Your task to perform on an android device: install app "Gboard" Image 0: 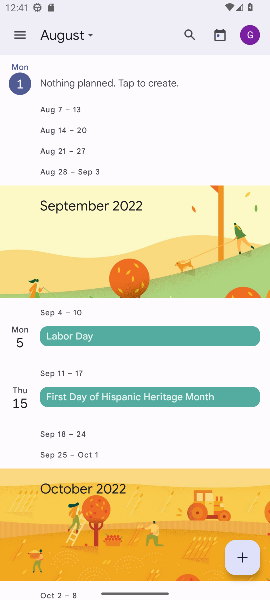
Step 0: press home button
Your task to perform on an android device: install app "Gboard" Image 1: 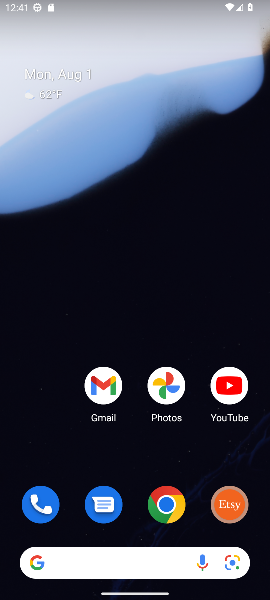
Step 1: drag from (138, 572) to (114, 214)
Your task to perform on an android device: install app "Gboard" Image 2: 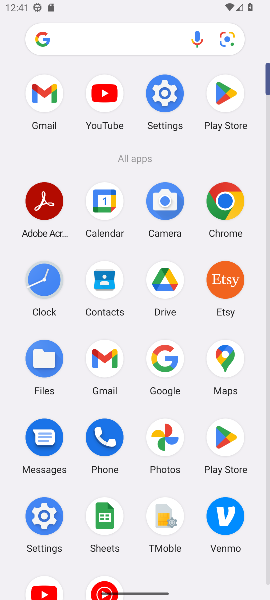
Step 2: click (225, 103)
Your task to perform on an android device: install app "Gboard" Image 3: 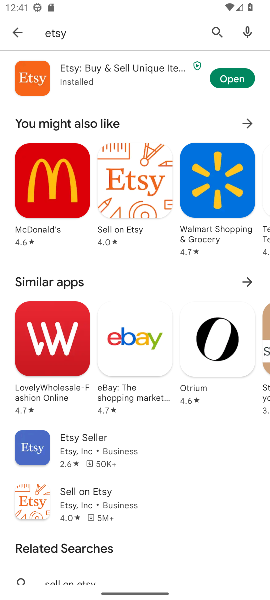
Step 3: click (217, 30)
Your task to perform on an android device: install app "Gboard" Image 4: 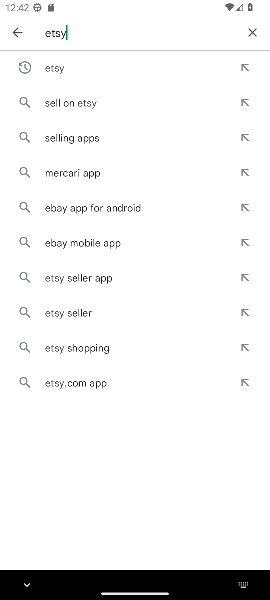
Step 4: click (249, 29)
Your task to perform on an android device: install app "Gboard" Image 5: 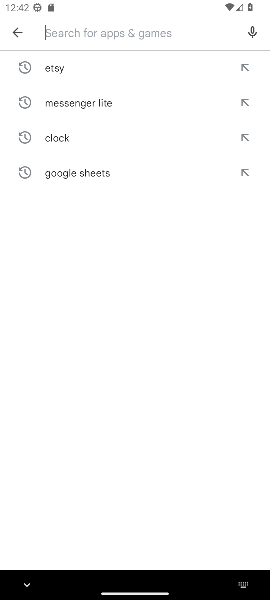
Step 5: type "gboard"
Your task to perform on an android device: install app "Gboard" Image 6: 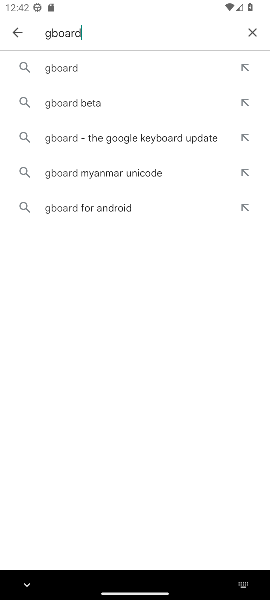
Step 6: click (65, 69)
Your task to perform on an android device: install app "Gboard" Image 7: 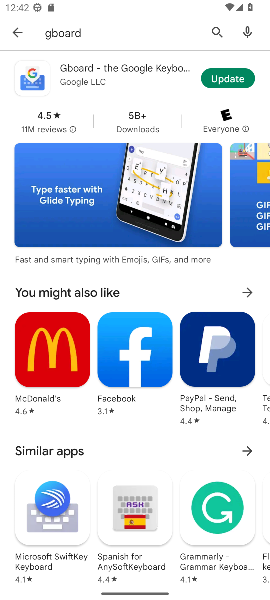
Step 7: task complete